Your task to perform on an android device: turn vacation reply on in the gmail app Image 0: 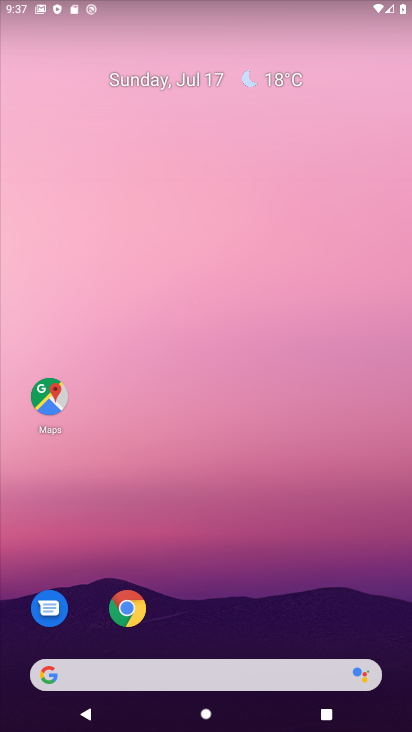
Step 0: drag from (218, 536) to (164, 249)
Your task to perform on an android device: turn vacation reply on in the gmail app Image 1: 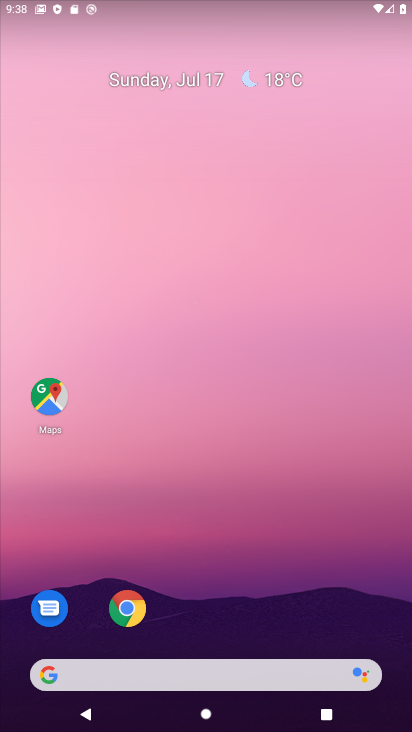
Step 1: drag from (243, 600) to (223, 217)
Your task to perform on an android device: turn vacation reply on in the gmail app Image 2: 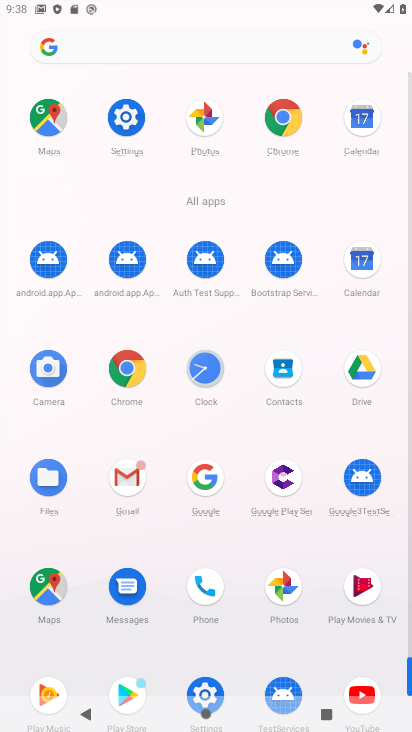
Step 2: click (132, 482)
Your task to perform on an android device: turn vacation reply on in the gmail app Image 3: 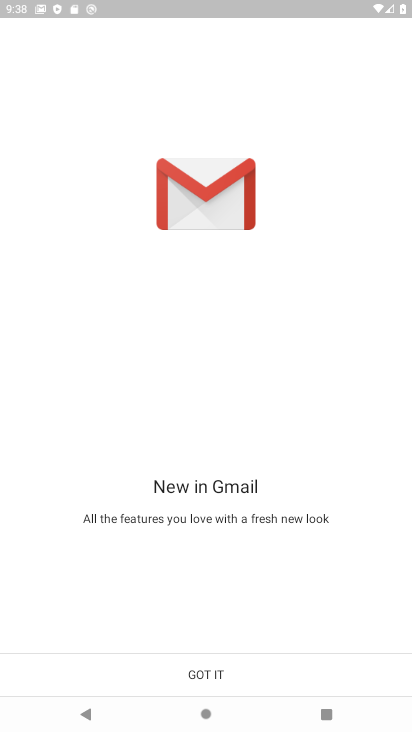
Step 3: click (201, 670)
Your task to perform on an android device: turn vacation reply on in the gmail app Image 4: 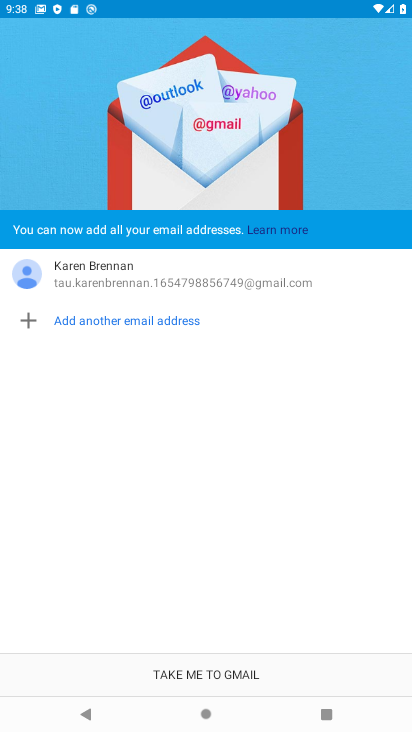
Step 4: click (106, 267)
Your task to perform on an android device: turn vacation reply on in the gmail app Image 5: 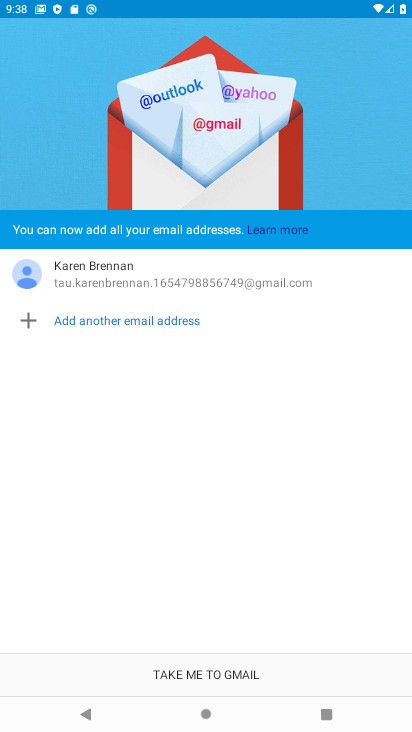
Step 5: click (225, 667)
Your task to perform on an android device: turn vacation reply on in the gmail app Image 6: 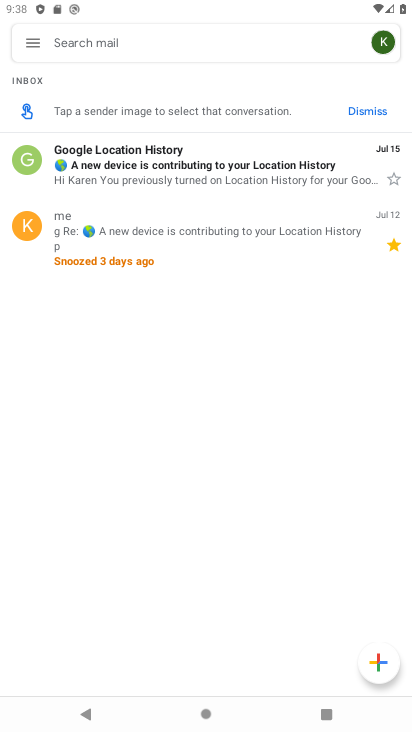
Step 6: click (34, 47)
Your task to perform on an android device: turn vacation reply on in the gmail app Image 7: 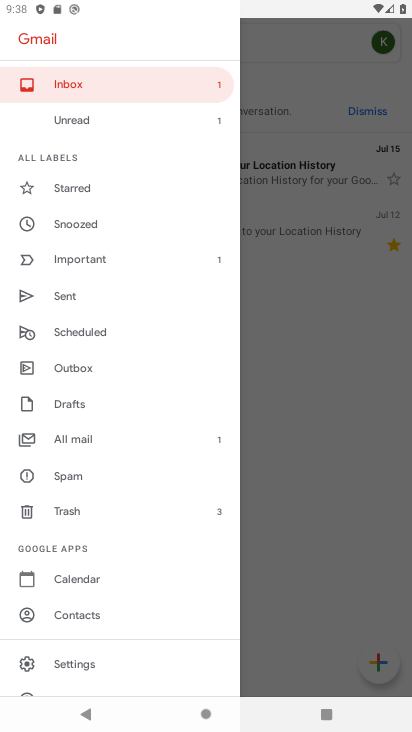
Step 7: click (70, 662)
Your task to perform on an android device: turn vacation reply on in the gmail app Image 8: 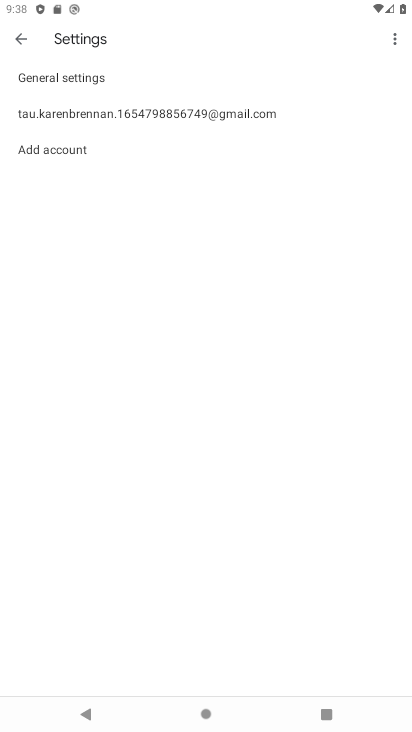
Step 8: task complete